Your task to perform on an android device: turn on the 12-hour format for clock Image 0: 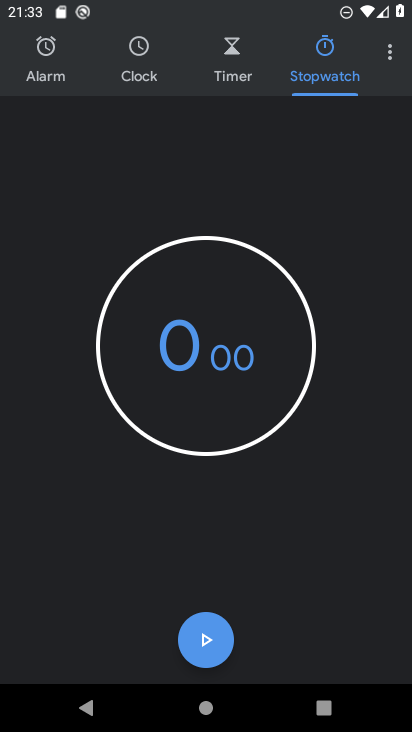
Step 0: click (390, 46)
Your task to perform on an android device: turn on the 12-hour format for clock Image 1: 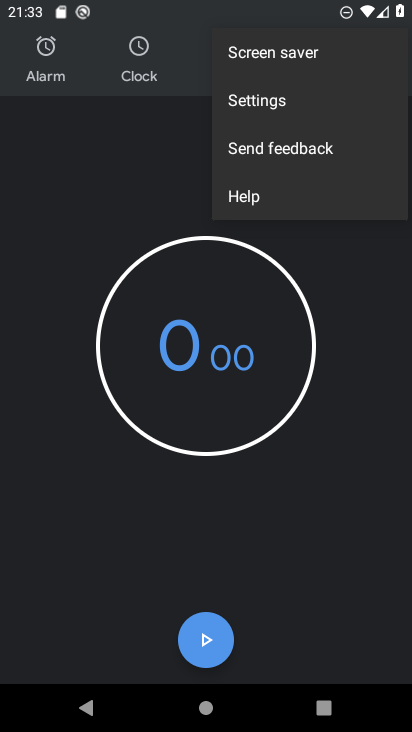
Step 1: click (294, 111)
Your task to perform on an android device: turn on the 12-hour format for clock Image 2: 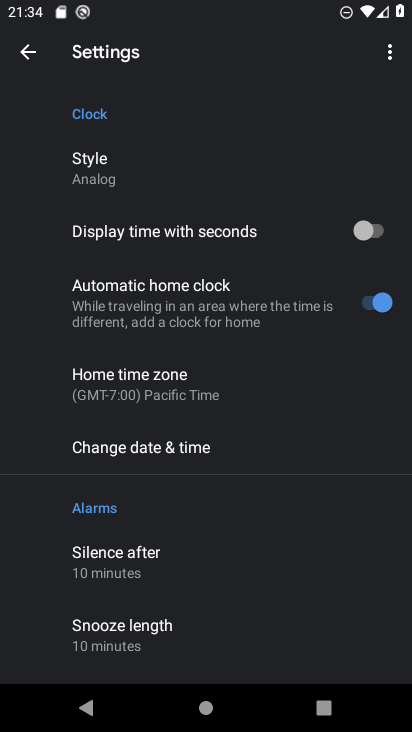
Step 2: click (205, 445)
Your task to perform on an android device: turn on the 12-hour format for clock Image 3: 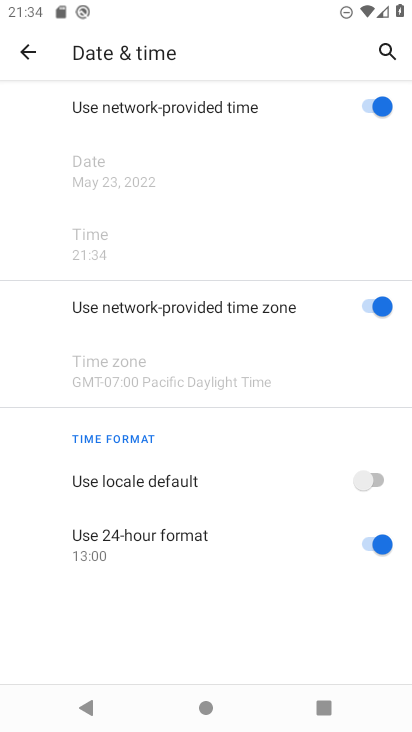
Step 3: click (369, 543)
Your task to perform on an android device: turn on the 12-hour format for clock Image 4: 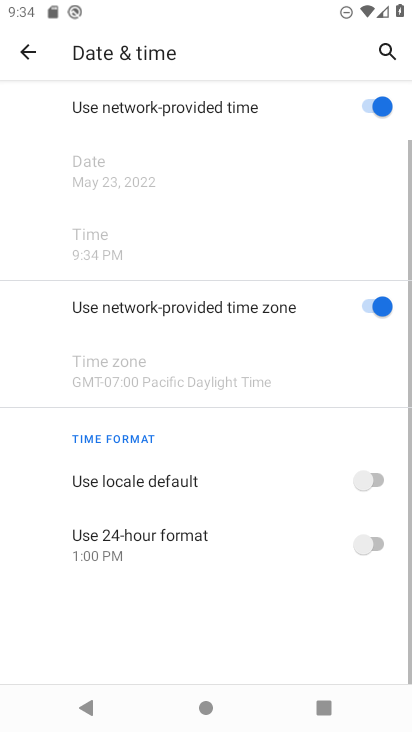
Step 4: task complete